Your task to perform on an android device: turn off priority inbox in the gmail app Image 0: 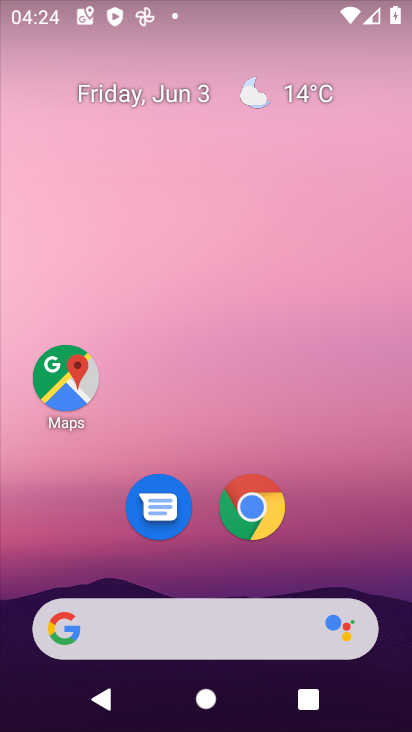
Step 0: drag from (181, 565) to (211, 10)
Your task to perform on an android device: turn off priority inbox in the gmail app Image 1: 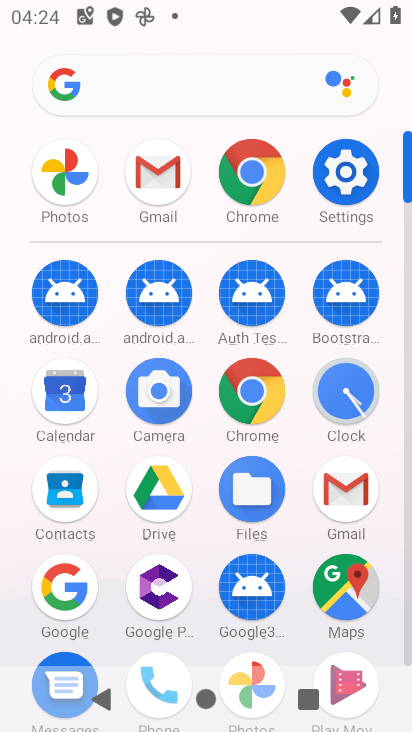
Step 1: click (161, 178)
Your task to perform on an android device: turn off priority inbox in the gmail app Image 2: 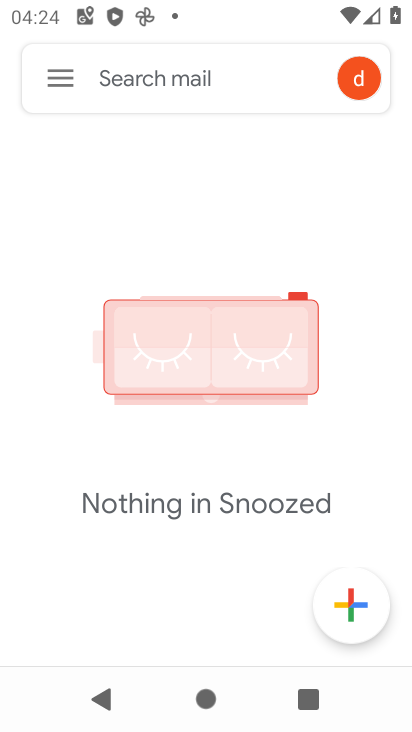
Step 2: click (57, 74)
Your task to perform on an android device: turn off priority inbox in the gmail app Image 3: 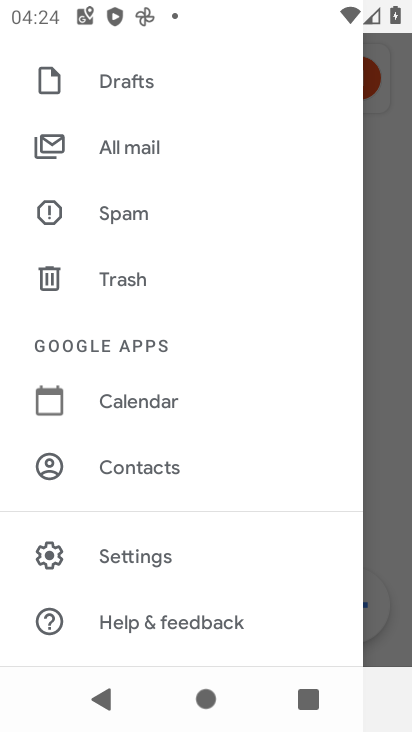
Step 3: click (146, 554)
Your task to perform on an android device: turn off priority inbox in the gmail app Image 4: 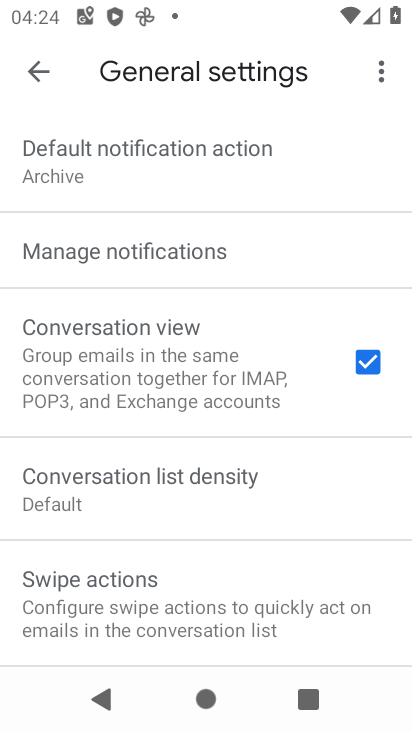
Step 4: click (25, 66)
Your task to perform on an android device: turn off priority inbox in the gmail app Image 5: 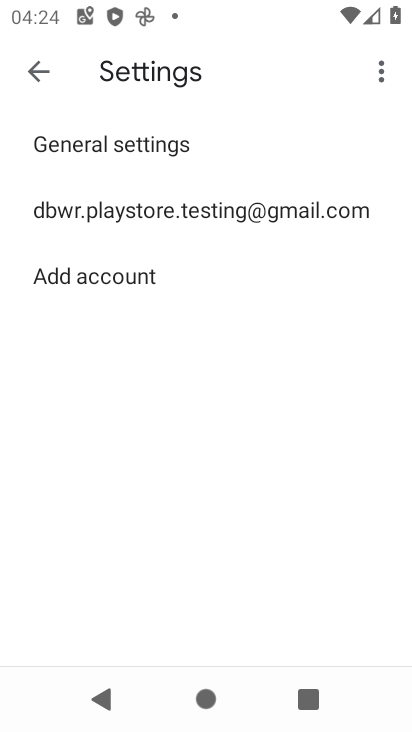
Step 5: click (140, 218)
Your task to perform on an android device: turn off priority inbox in the gmail app Image 6: 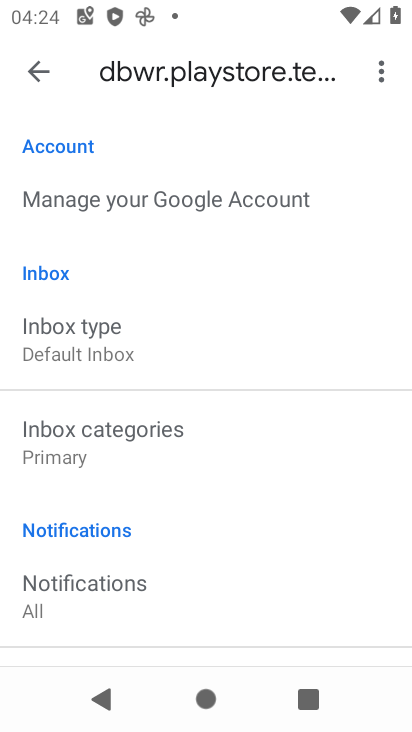
Step 6: click (90, 333)
Your task to perform on an android device: turn off priority inbox in the gmail app Image 7: 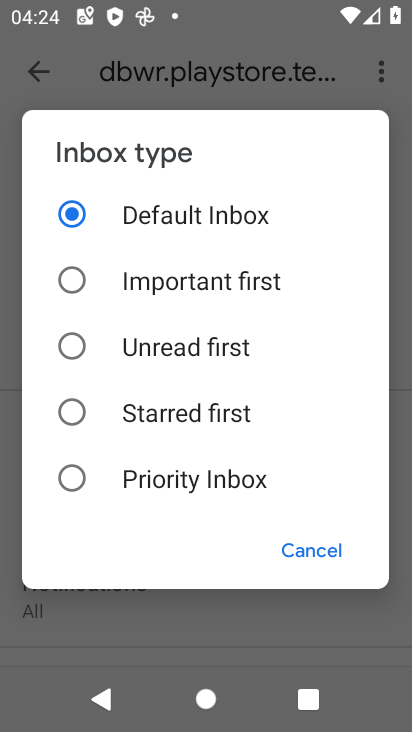
Step 7: task complete